Your task to perform on an android device: set an alarm Image 0: 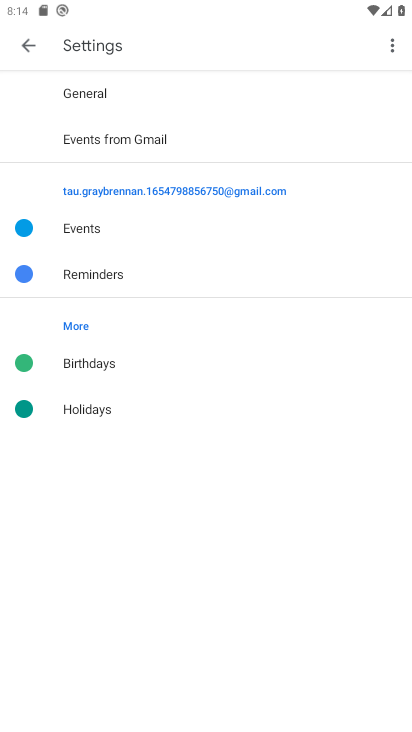
Step 0: press home button
Your task to perform on an android device: set an alarm Image 1: 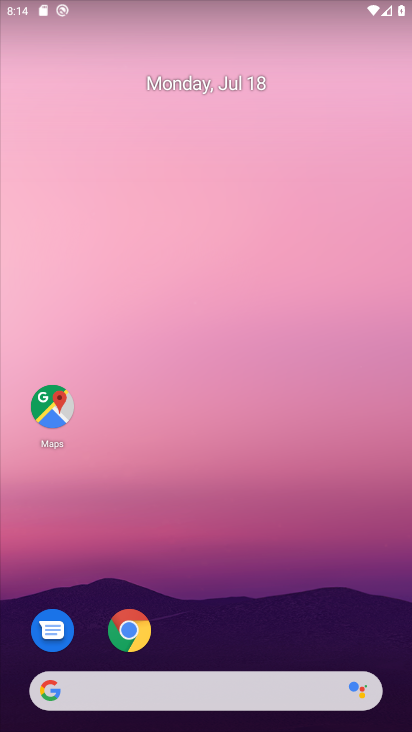
Step 1: drag from (188, 637) to (239, 216)
Your task to perform on an android device: set an alarm Image 2: 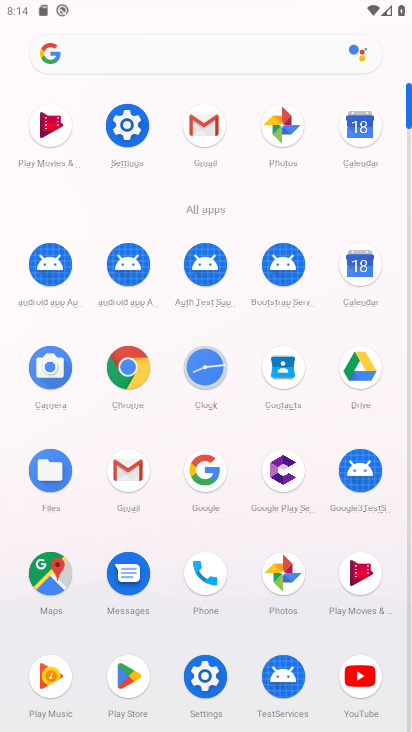
Step 2: click (207, 378)
Your task to perform on an android device: set an alarm Image 3: 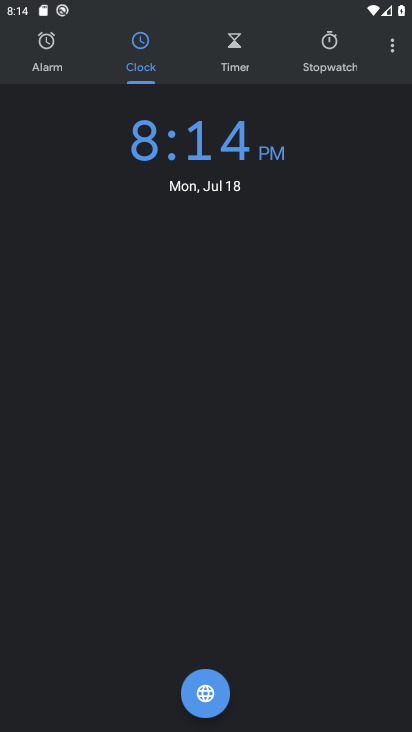
Step 3: click (55, 39)
Your task to perform on an android device: set an alarm Image 4: 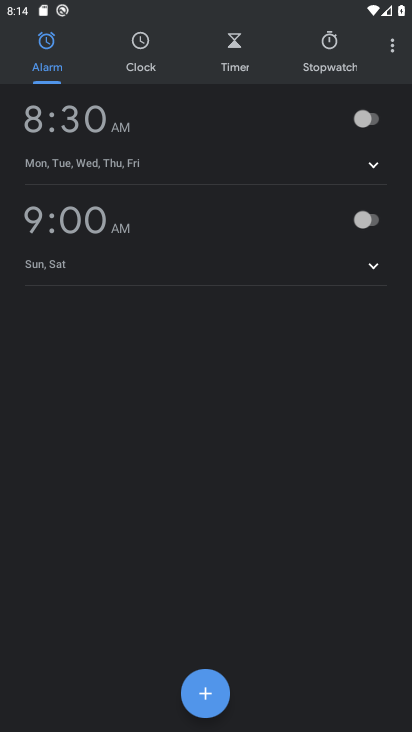
Step 4: click (382, 115)
Your task to perform on an android device: set an alarm Image 5: 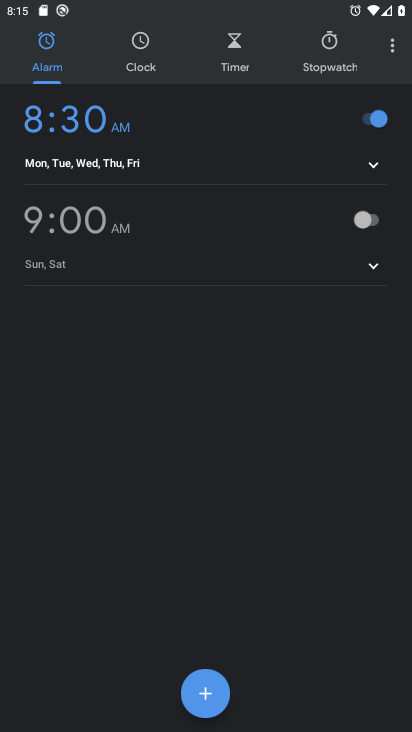
Step 5: task complete